Your task to perform on an android device: clear history in the chrome app Image 0: 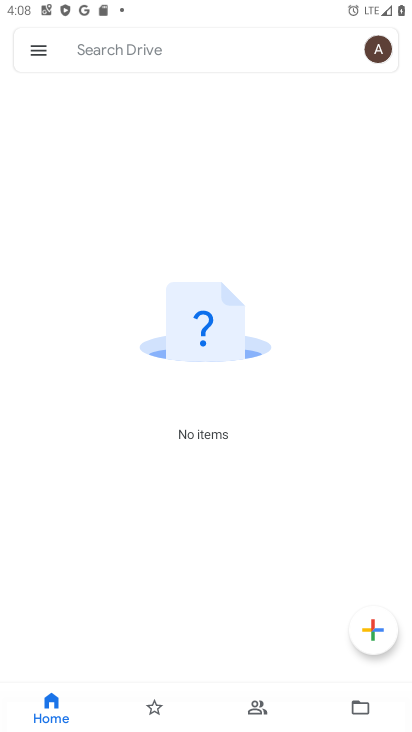
Step 0: press home button
Your task to perform on an android device: clear history in the chrome app Image 1: 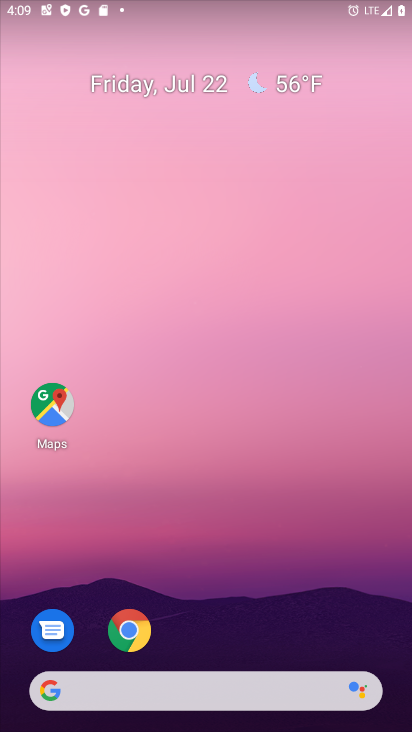
Step 1: click (131, 627)
Your task to perform on an android device: clear history in the chrome app Image 2: 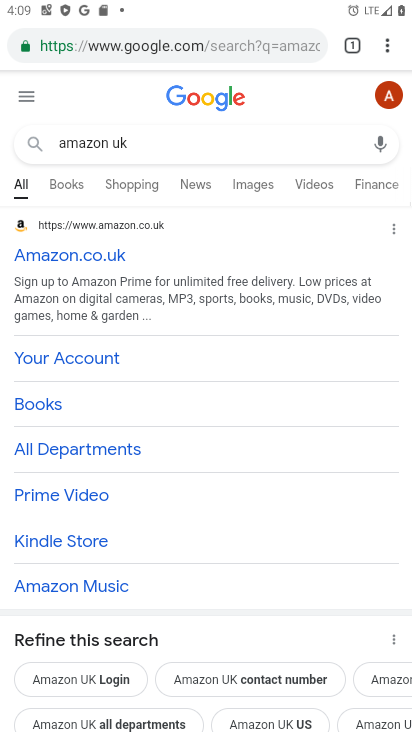
Step 2: drag from (382, 44) to (257, 253)
Your task to perform on an android device: clear history in the chrome app Image 3: 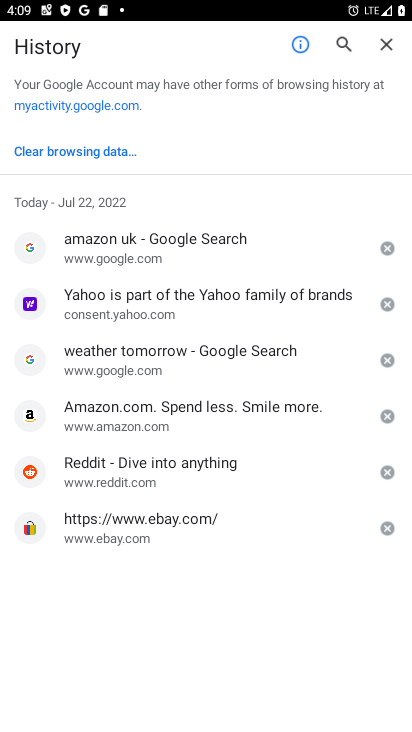
Step 3: click (110, 144)
Your task to perform on an android device: clear history in the chrome app Image 4: 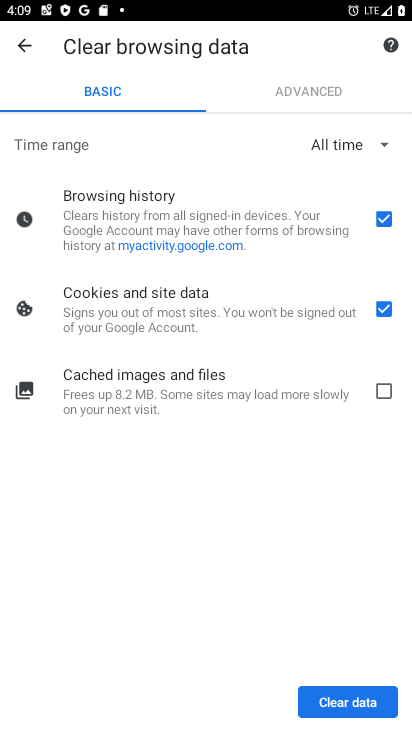
Step 4: click (349, 704)
Your task to perform on an android device: clear history in the chrome app Image 5: 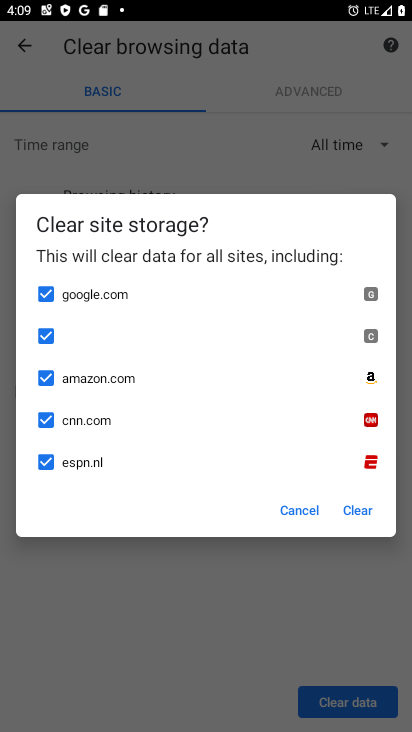
Step 5: click (348, 505)
Your task to perform on an android device: clear history in the chrome app Image 6: 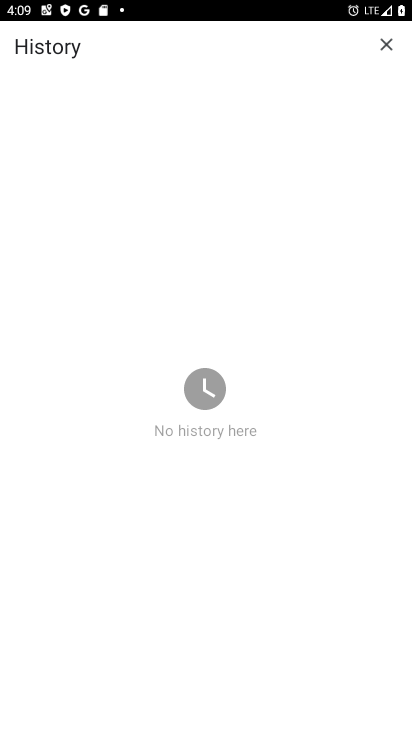
Step 6: task complete